Your task to perform on an android device: Open Yahoo.com Image 0: 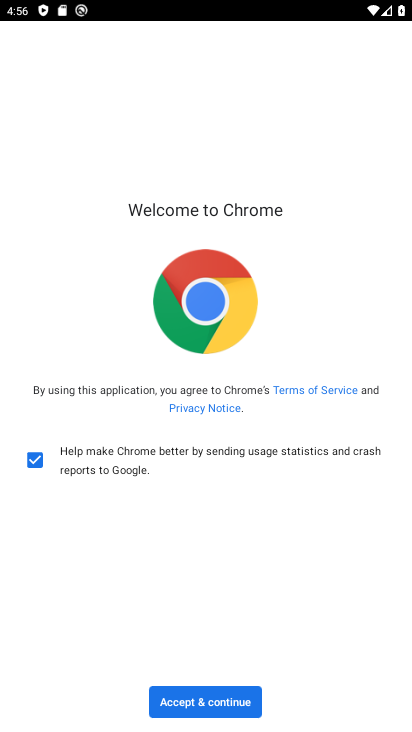
Step 0: press home button
Your task to perform on an android device: Open Yahoo.com Image 1: 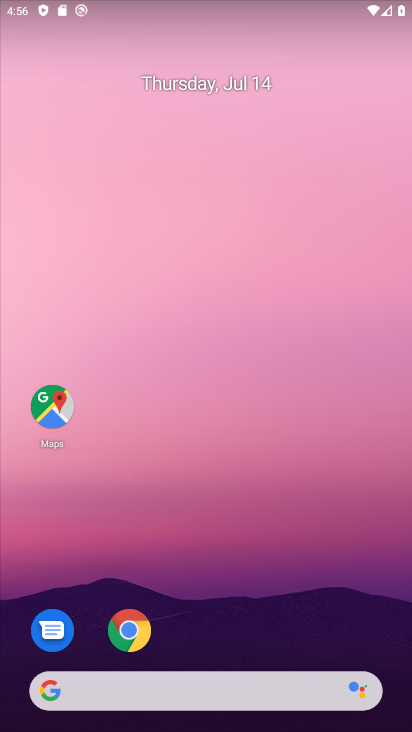
Step 1: click (46, 690)
Your task to perform on an android device: Open Yahoo.com Image 2: 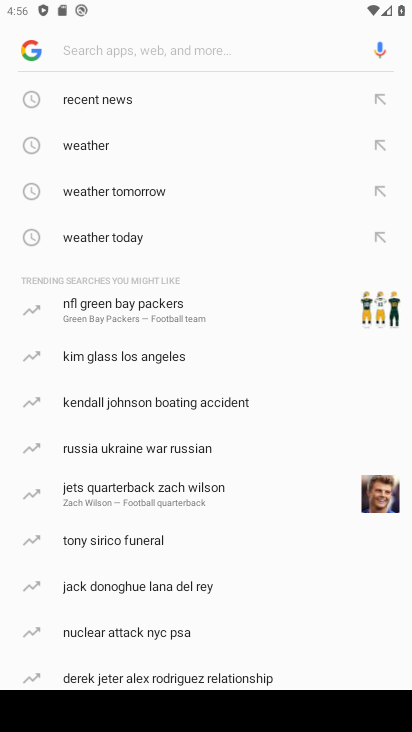
Step 2: type "Yahoo.com"
Your task to perform on an android device: Open Yahoo.com Image 3: 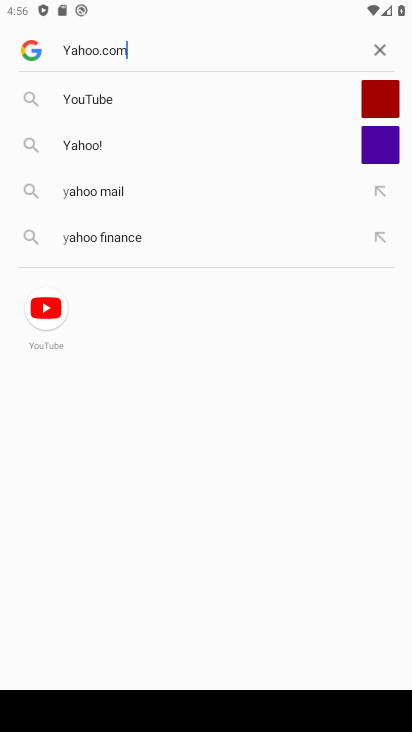
Step 3: press enter
Your task to perform on an android device: Open Yahoo.com Image 4: 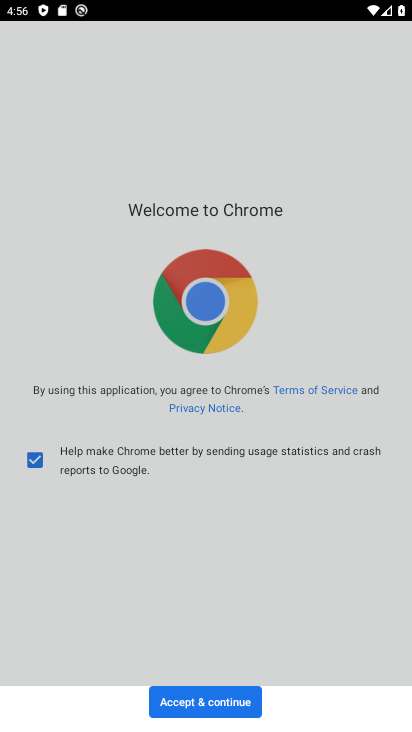
Step 4: click (210, 697)
Your task to perform on an android device: Open Yahoo.com Image 5: 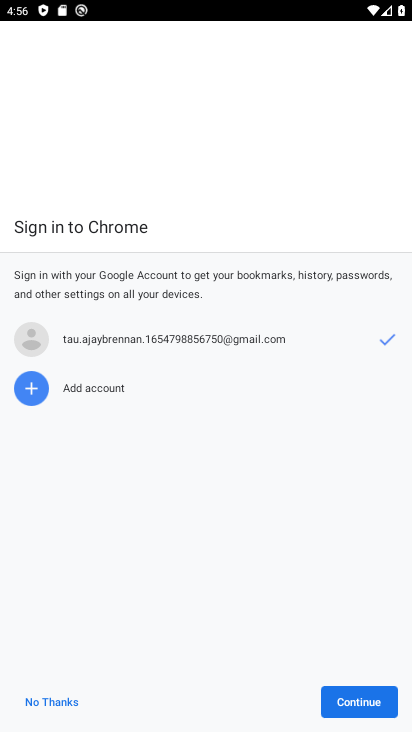
Step 5: click (348, 704)
Your task to perform on an android device: Open Yahoo.com Image 6: 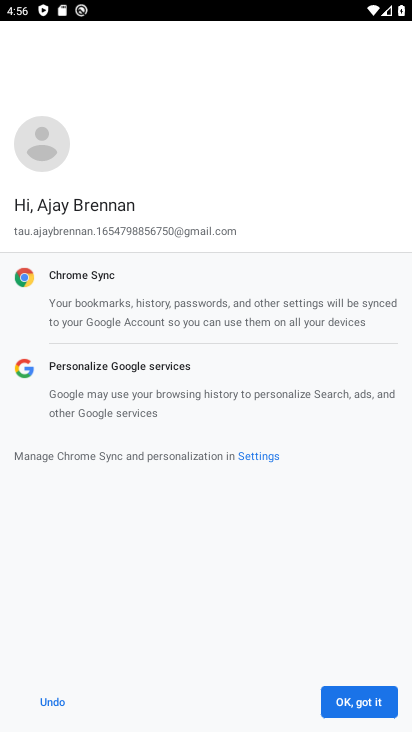
Step 6: click (367, 707)
Your task to perform on an android device: Open Yahoo.com Image 7: 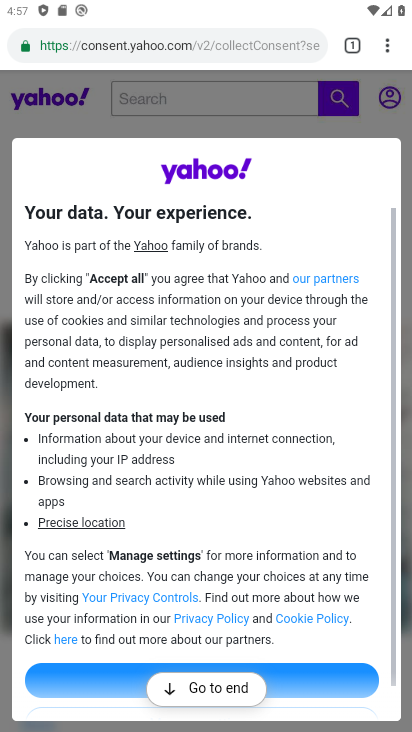
Step 7: click (297, 684)
Your task to perform on an android device: Open Yahoo.com Image 8: 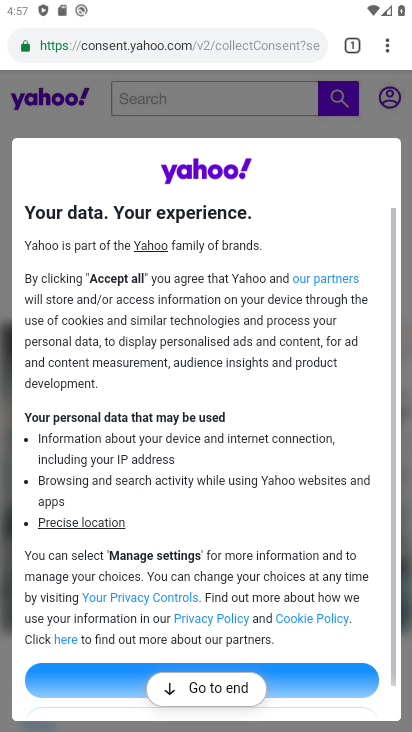
Step 8: click (190, 691)
Your task to perform on an android device: Open Yahoo.com Image 9: 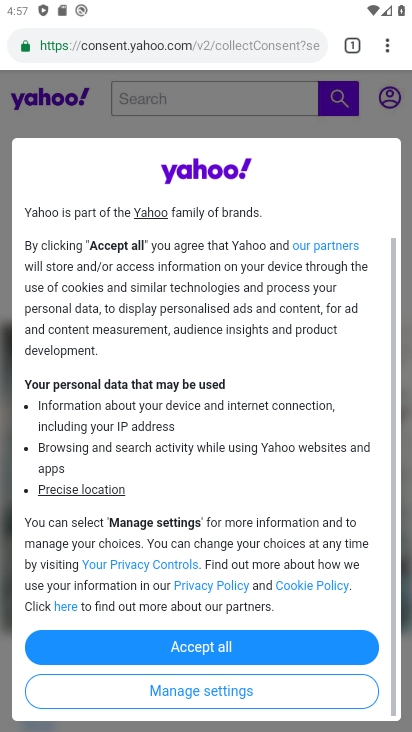
Step 9: click (236, 642)
Your task to perform on an android device: Open Yahoo.com Image 10: 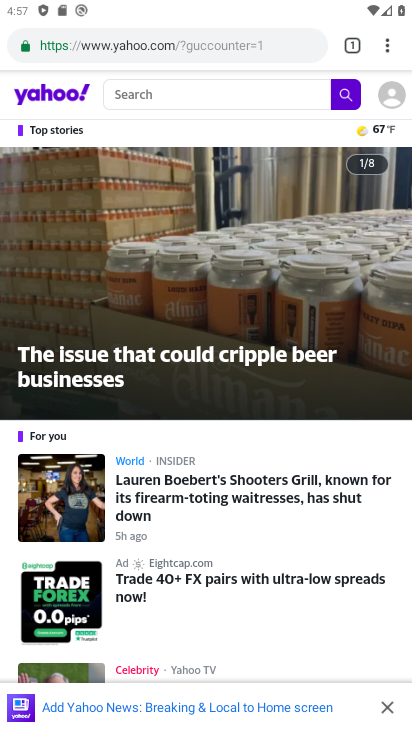
Step 10: task complete